Your task to perform on an android device: Open Google Maps Image 0: 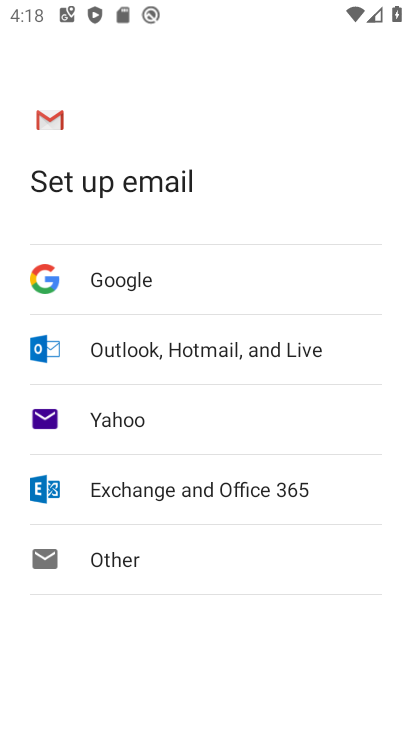
Step 0: press home button
Your task to perform on an android device: Open Google Maps Image 1: 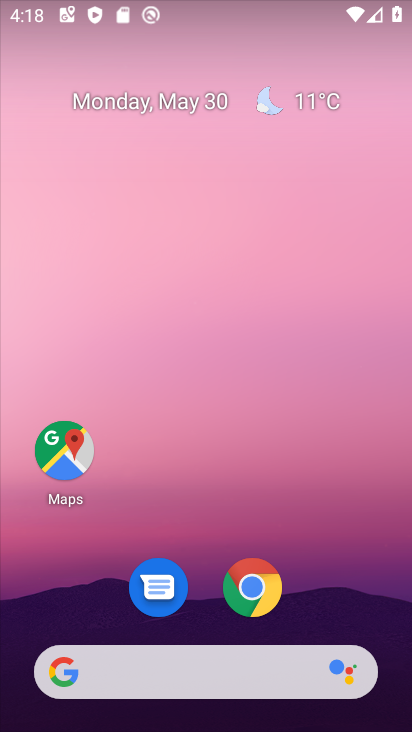
Step 1: click (74, 466)
Your task to perform on an android device: Open Google Maps Image 2: 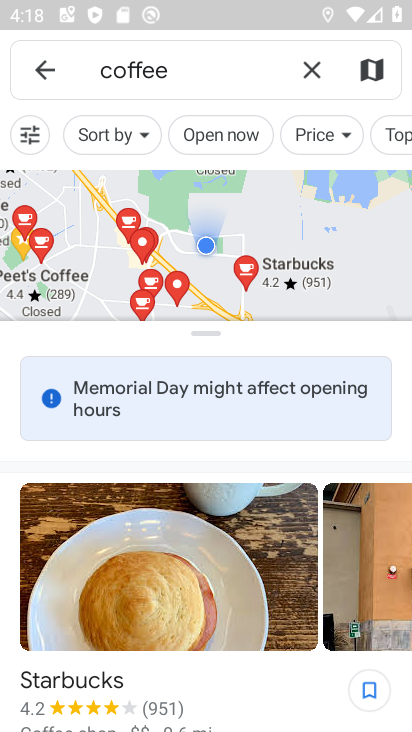
Step 2: task complete